Your task to perform on an android device: find which apps use the phone's location Image 0: 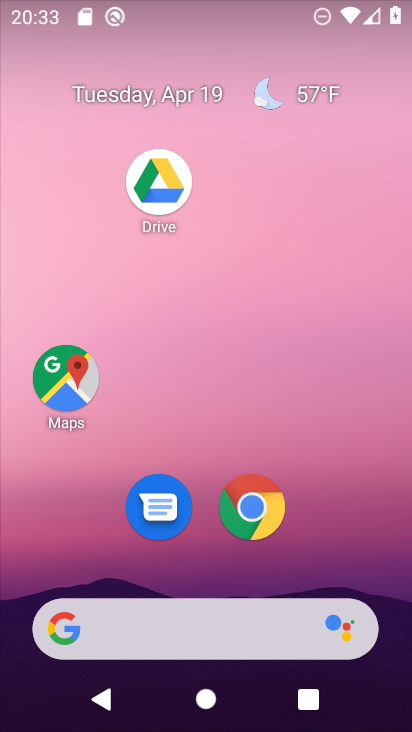
Step 0: drag from (334, 520) to (325, 119)
Your task to perform on an android device: find which apps use the phone's location Image 1: 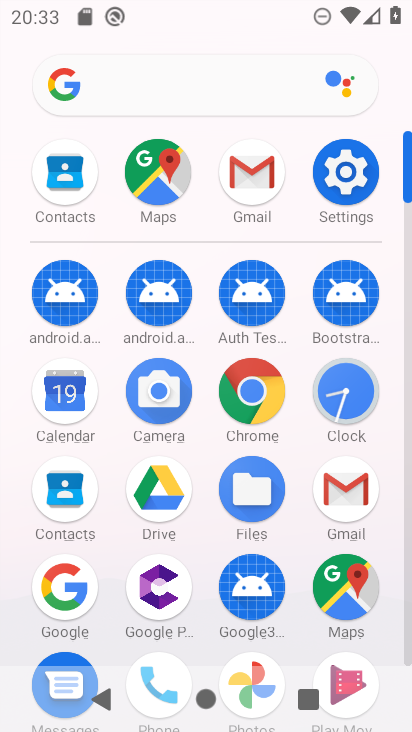
Step 1: click (344, 171)
Your task to perform on an android device: find which apps use the phone's location Image 2: 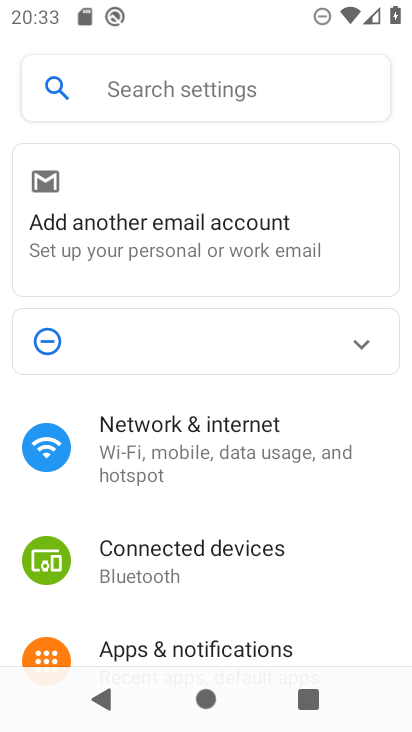
Step 2: drag from (267, 576) to (245, 142)
Your task to perform on an android device: find which apps use the phone's location Image 3: 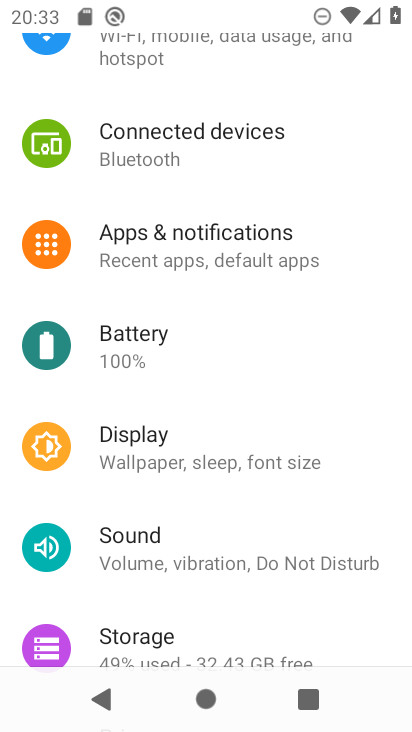
Step 3: drag from (280, 622) to (221, 99)
Your task to perform on an android device: find which apps use the phone's location Image 4: 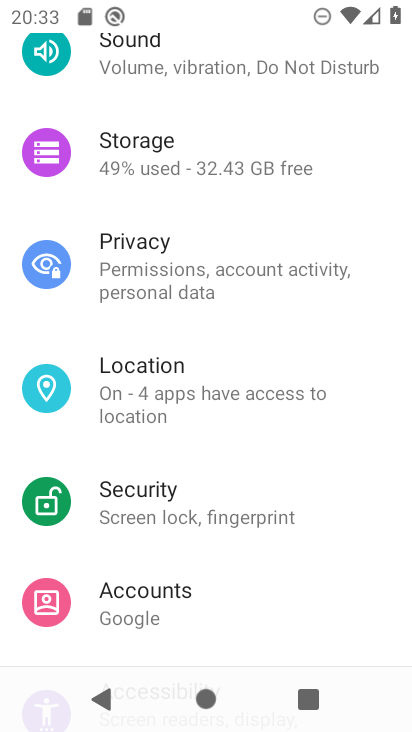
Step 4: click (219, 376)
Your task to perform on an android device: find which apps use the phone's location Image 5: 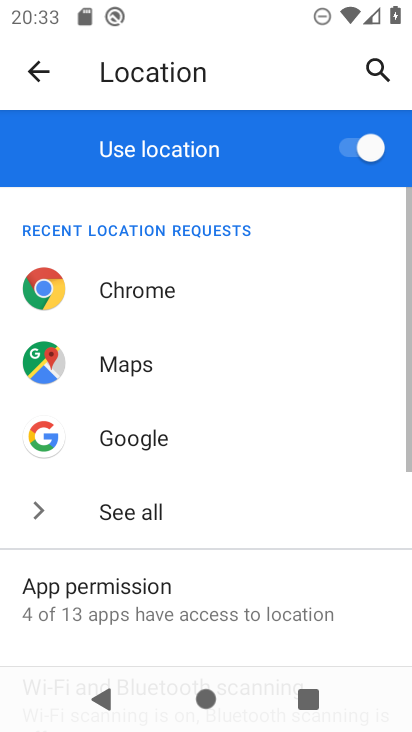
Step 5: drag from (224, 555) to (207, 275)
Your task to perform on an android device: find which apps use the phone's location Image 6: 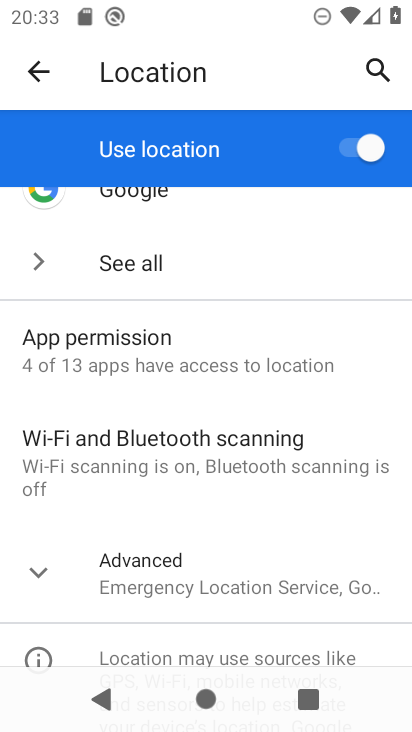
Step 6: click (193, 352)
Your task to perform on an android device: find which apps use the phone's location Image 7: 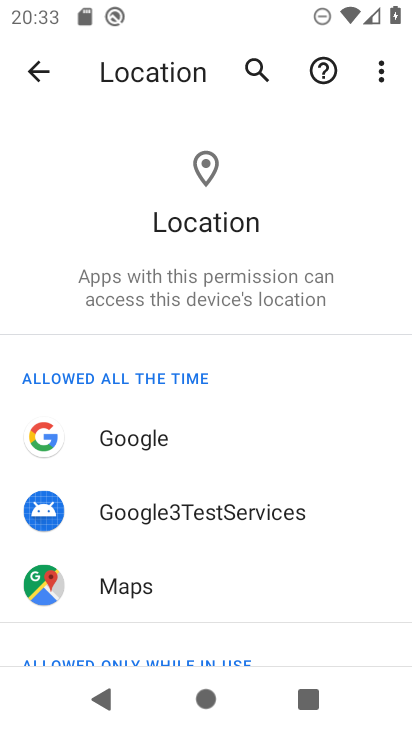
Step 7: task complete